Your task to perform on an android device: turn smart compose on in the gmail app Image 0: 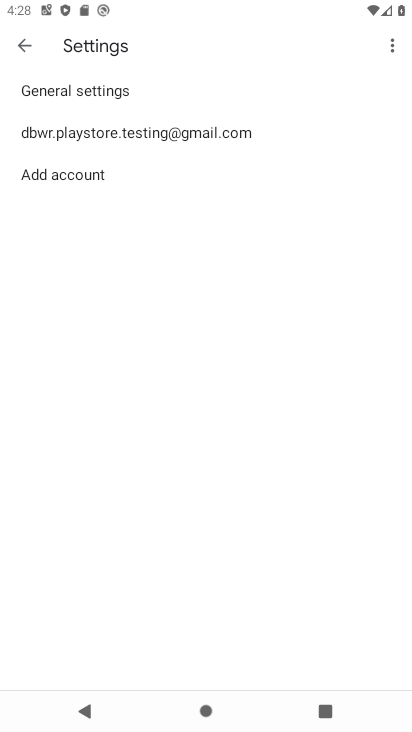
Step 0: press back button
Your task to perform on an android device: turn smart compose on in the gmail app Image 1: 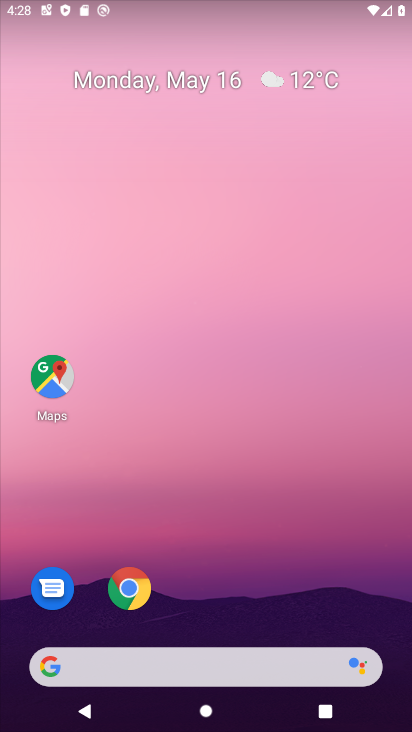
Step 1: drag from (247, 606) to (261, 58)
Your task to perform on an android device: turn smart compose on in the gmail app Image 2: 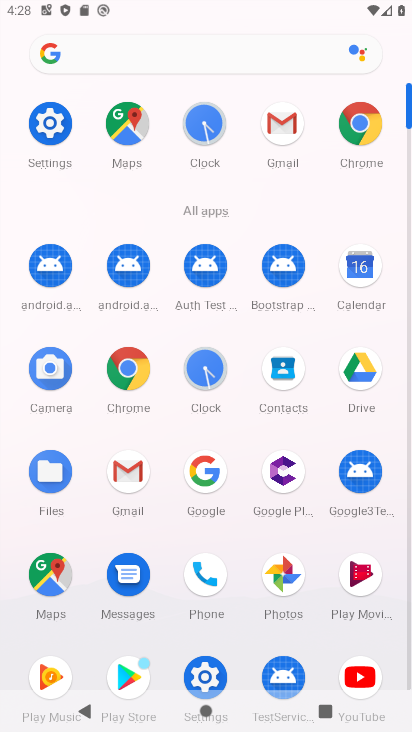
Step 2: click (275, 118)
Your task to perform on an android device: turn smart compose on in the gmail app Image 3: 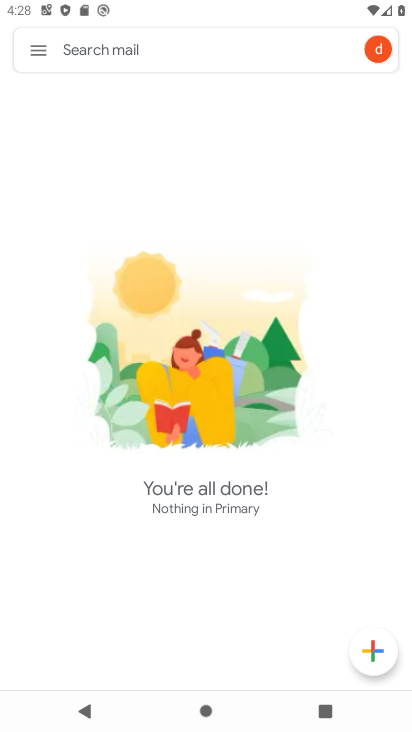
Step 3: click (36, 53)
Your task to perform on an android device: turn smart compose on in the gmail app Image 4: 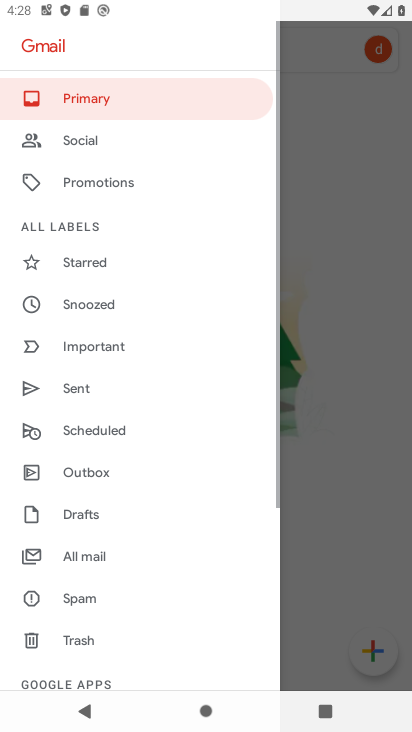
Step 4: drag from (80, 609) to (177, 84)
Your task to perform on an android device: turn smart compose on in the gmail app Image 5: 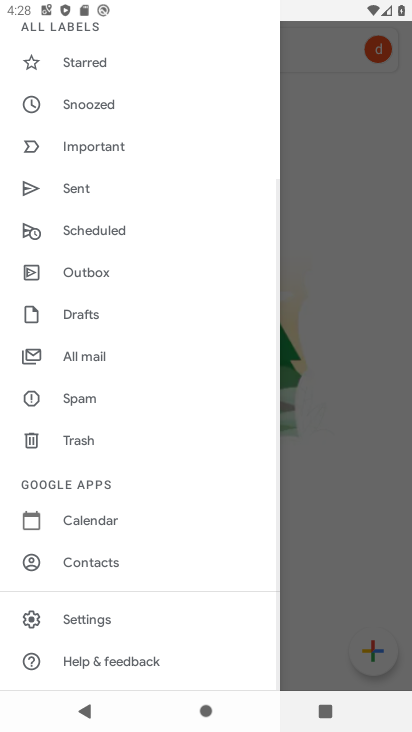
Step 5: click (89, 617)
Your task to perform on an android device: turn smart compose on in the gmail app Image 6: 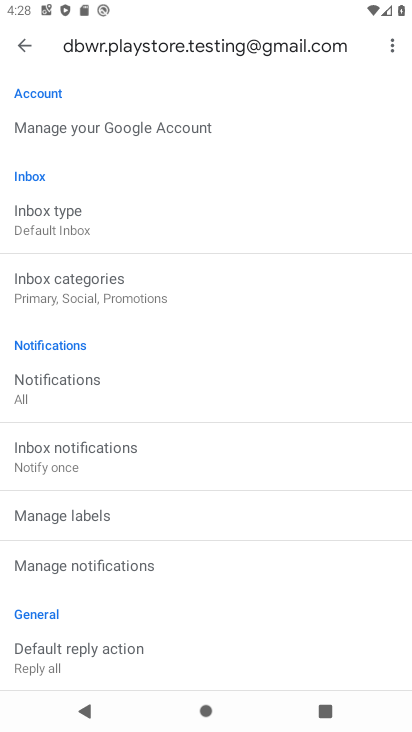
Step 6: task complete